Your task to perform on an android device: Play the last video I watched on Youtube Image 0: 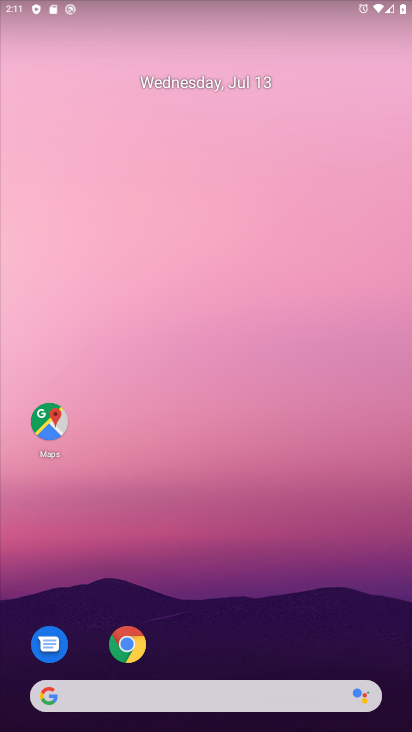
Step 0: drag from (265, 719) to (200, 716)
Your task to perform on an android device: Play the last video I watched on Youtube Image 1: 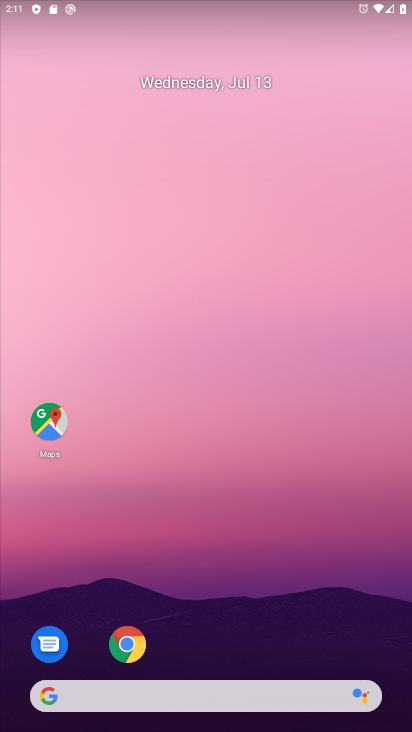
Step 1: drag from (284, 716) to (400, 576)
Your task to perform on an android device: Play the last video I watched on Youtube Image 2: 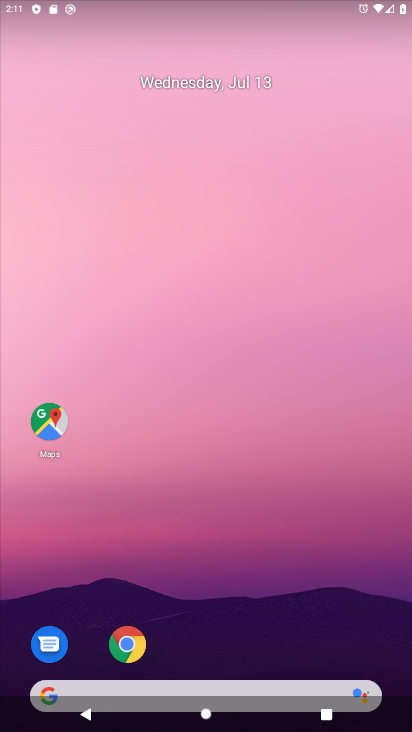
Step 2: drag from (260, 718) to (336, 47)
Your task to perform on an android device: Play the last video I watched on Youtube Image 3: 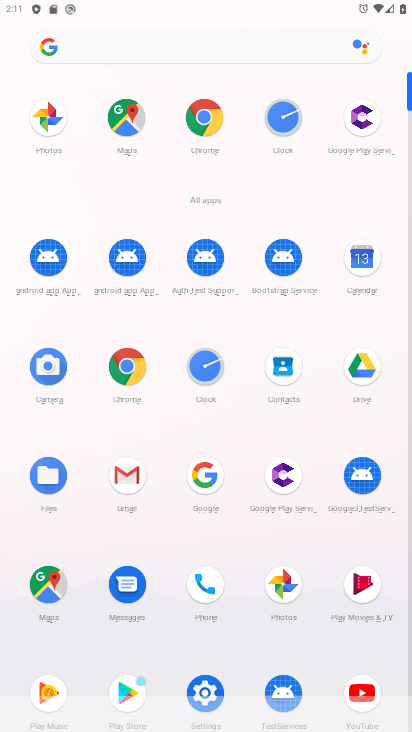
Step 3: click (368, 679)
Your task to perform on an android device: Play the last video I watched on Youtube Image 4: 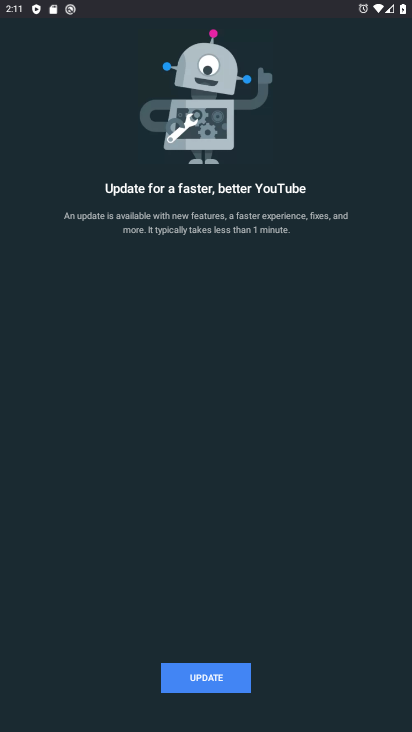
Step 4: click (178, 679)
Your task to perform on an android device: Play the last video I watched on Youtube Image 5: 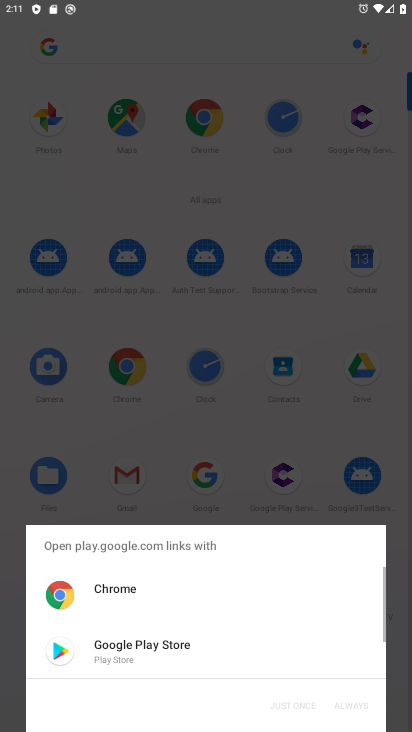
Step 5: click (187, 658)
Your task to perform on an android device: Play the last video I watched on Youtube Image 6: 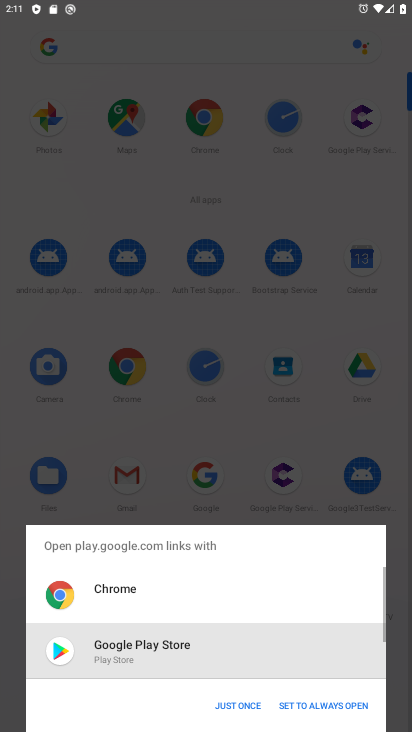
Step 6: click (234, 703)
Your task to perform on an android device: Play the last video I watched on Youtube Image 7: 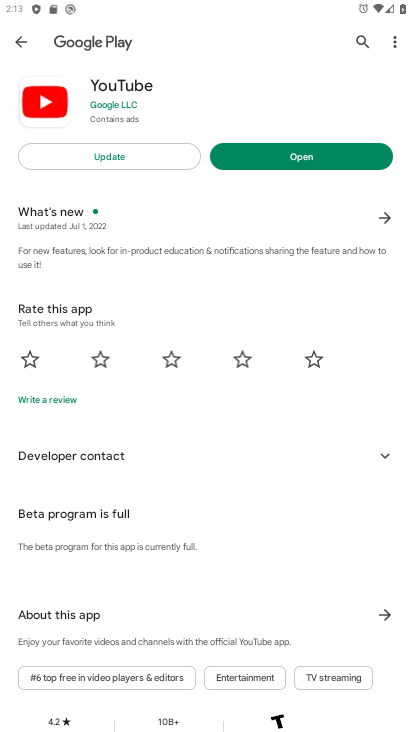
Step 7: click (111, 155)
Your task to perform on an android device: Play the last video I watched on Youtube Image 8: 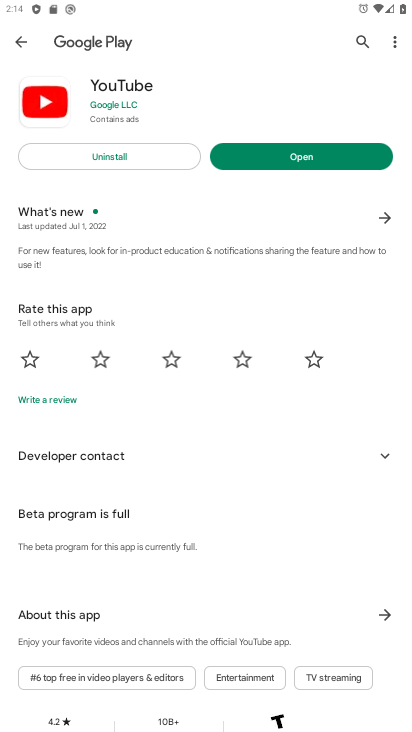
Step 8: click (326, 146)
Your task to perform on an android device: Play the last video I watched on Youtube Image 9: 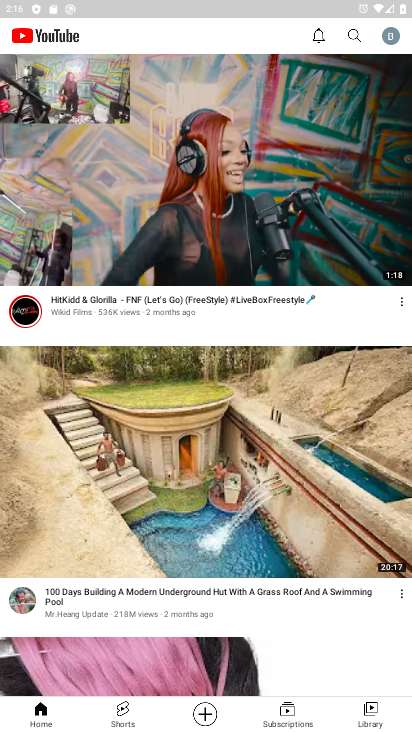
Step 9: click (387, 704)
Your task to perform on an android device: Play the last video I watched on Youtube Image 10: 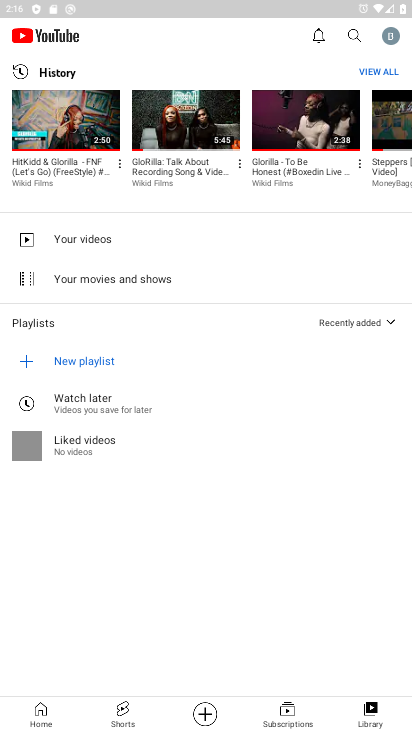
Step 10: click (68, 163)
Your task to perform on an android device: Play the last video I watched on Youtube Image 11: 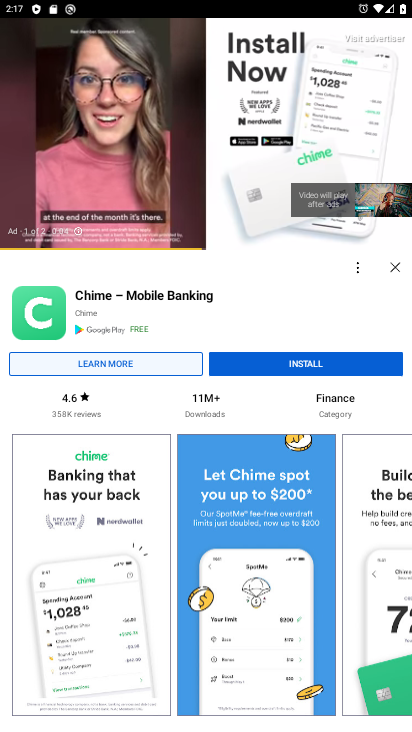
Step 11: click (393, 259)
Your task to perform on an android device: Play the last video I watched on Youtube Image 12: 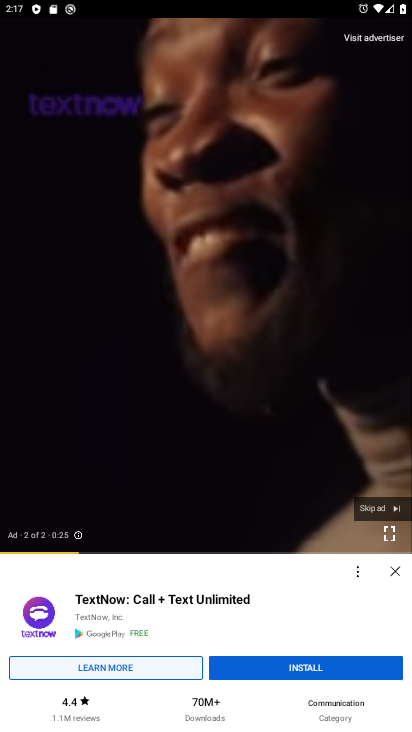
Step 12: task complete